Your task to perform on an android device: How do I get to the nearest Home Depot? Image 0: 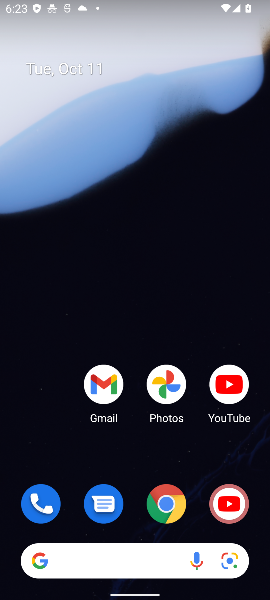
Step 0: click (129, 571)
Your task to perform on an android device: How do I get to the nearest Home Depot? Image 1: 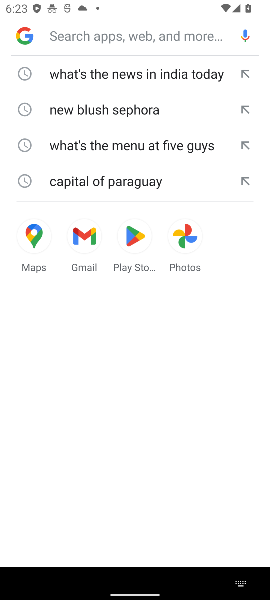
Step 1: click (73, 39)
Your task to perform on an android device: How do I get to the nearest Home Depot? Image 2: 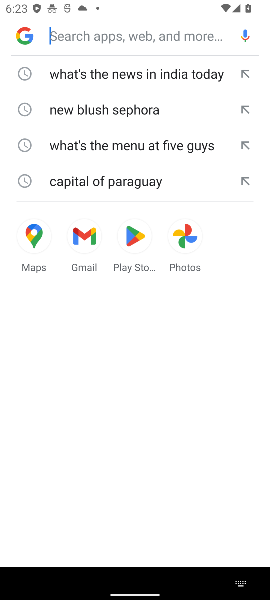
Step 2: type "How do I get to the nearest Home Depot?"
Your task to perform on an android device: How do I get to the nearest Home Depot? Image 3: 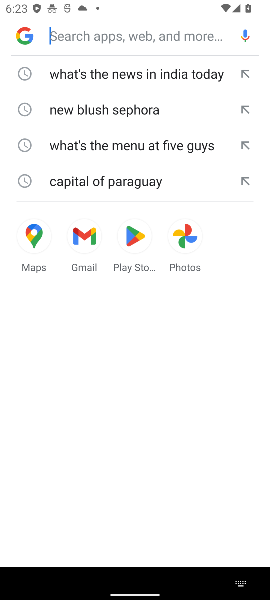
Step 3: click (137, 419)
Your task to perform on an android device: How do I get to the nearest Home Depot? Image 4: 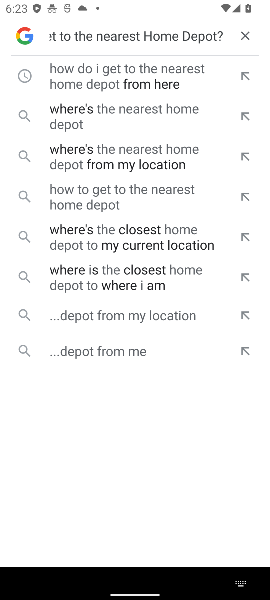
Step 4: click (160, 77)
Your task to perform on an android device: How do I get to the nearest Home Depot? Image 5: 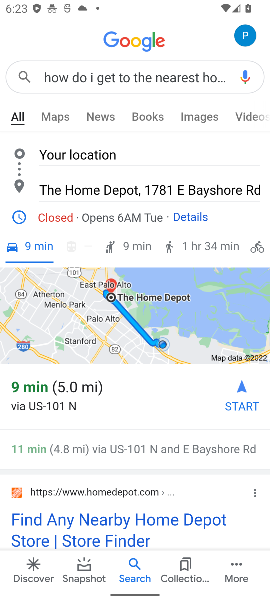
Step 5: task complete